Your task to perform on an android device: turn pop-ups off in chrome Image 0: 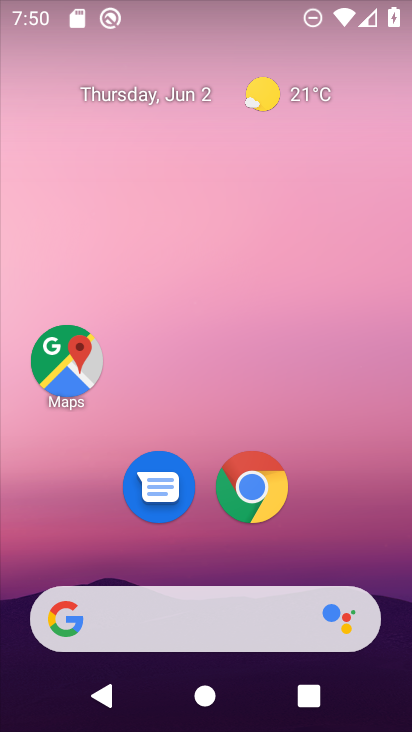
Step 0: click (250, 484)
Your task to perform on an android device: turn pop-ups off in chrome Image 1: 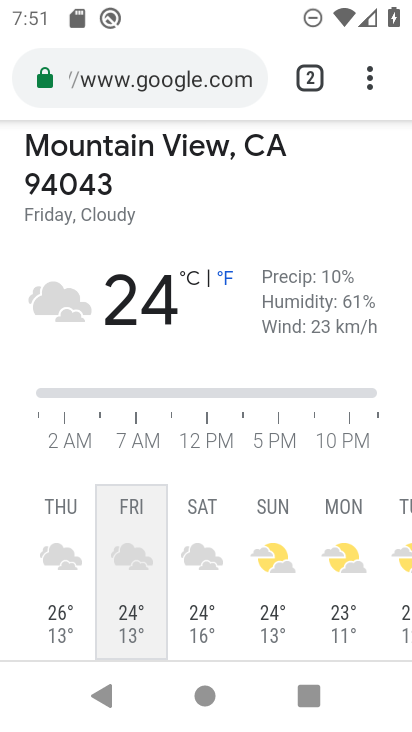
Step 1: click (370, 78)
Your task to perform on an android device: turn pop-ups off in chrome Image 2: 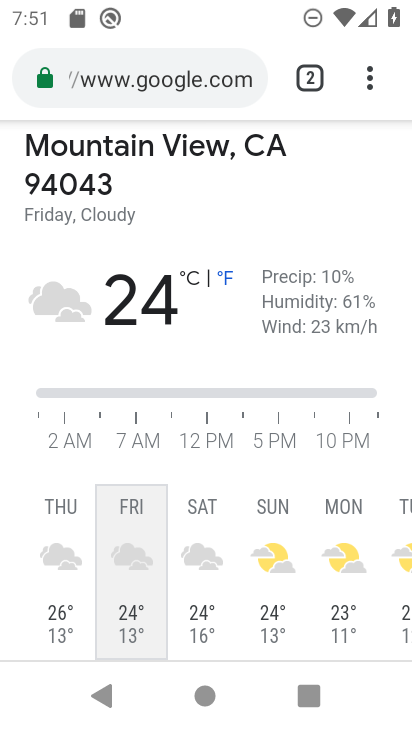
Step 2: click (371, 81)
Your task to perform on an android device: turn pop-ups off in chrome Image 3: 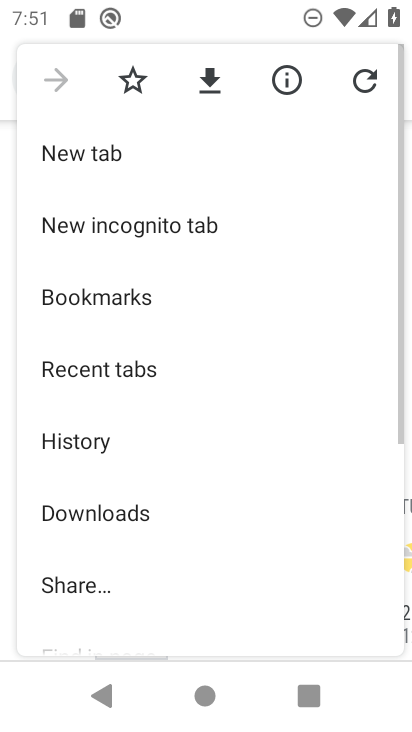
Step 3: drag from (167, 521) to (258, 50)
Your task to perform on an android device: turn pop-ups off in chrome Image 4: 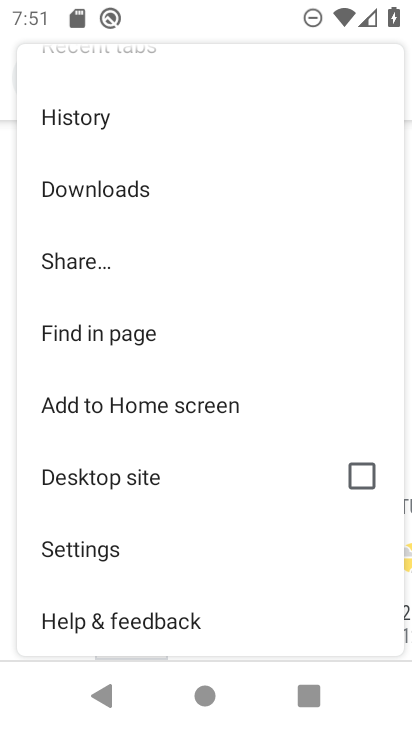
Step 4: click (94, 561)
Your task to perform on an android device: turn pop-ups off in chrome Image 5: 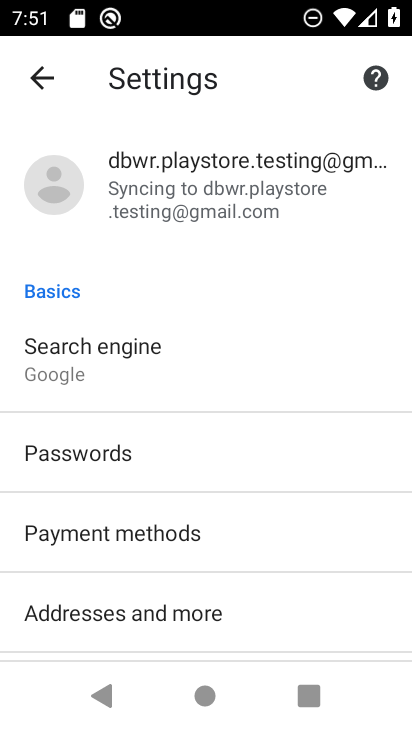
Step 5: drag from (102, 555) to (160, 210)
Your task to perform on an android device: turn pop-ups off in chrome Image 6: 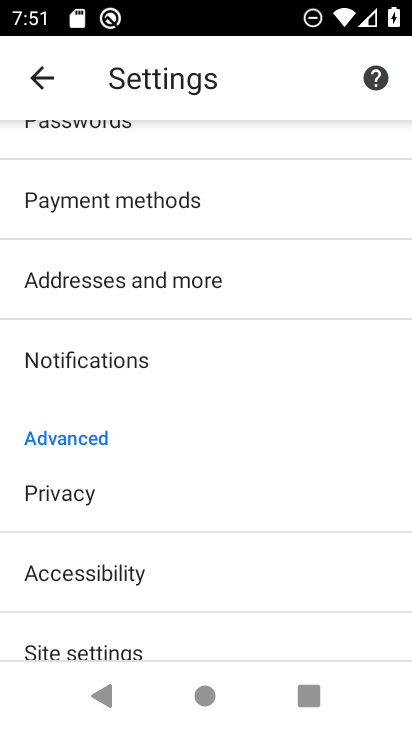
Step 6: drag from (124, 586) to (136, 375)
Your task to perform on an android device: turn pop-ups off in chrome Image 7: 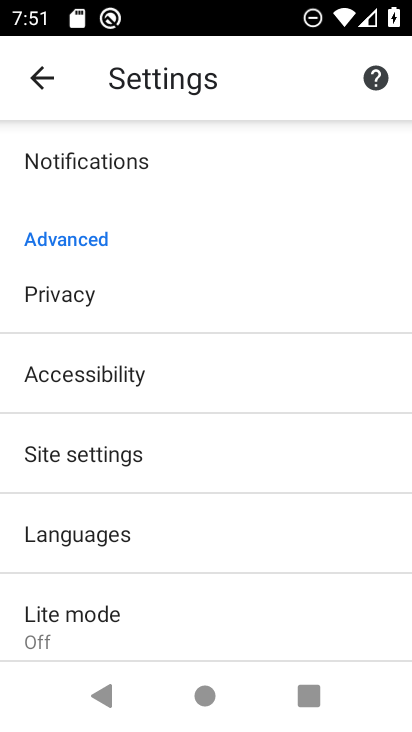
Step 7: click (94, 464)
Your task to perform on an android device: turn pop-ups off in chrome Image 8: 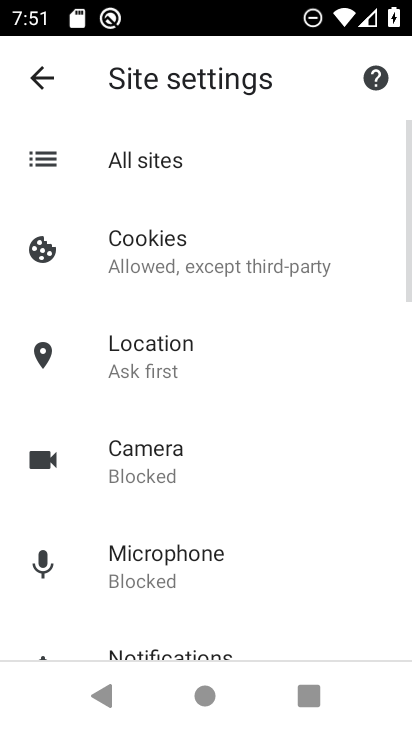
Step 8: drag from (211, 536) to (247, 149)
Your task to perform on an android device: turn pop-ups off in chrome Image 9: 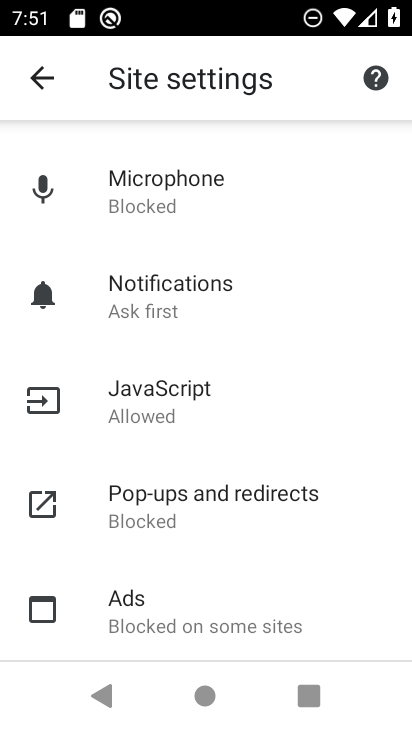
Step 9: drag from (168, 589) to (176, 235)
Your task to perform on an android device: turn pop-ups off in chrome Image 10: 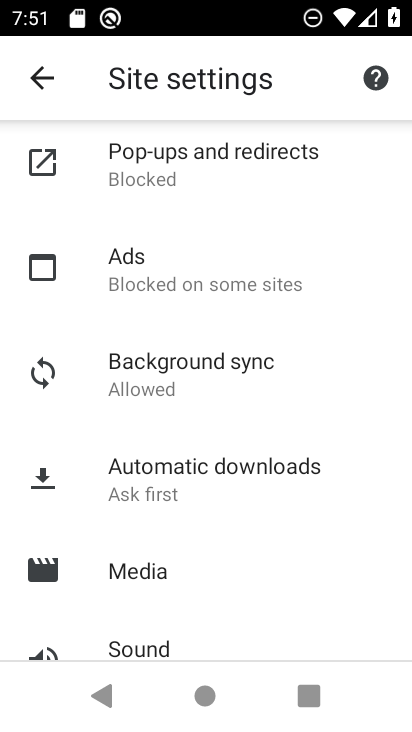
Step 10: drag from (185, 605) to (236, 685)
Your task to perform on an android device: turn pop-ups off in chrome Image 11: 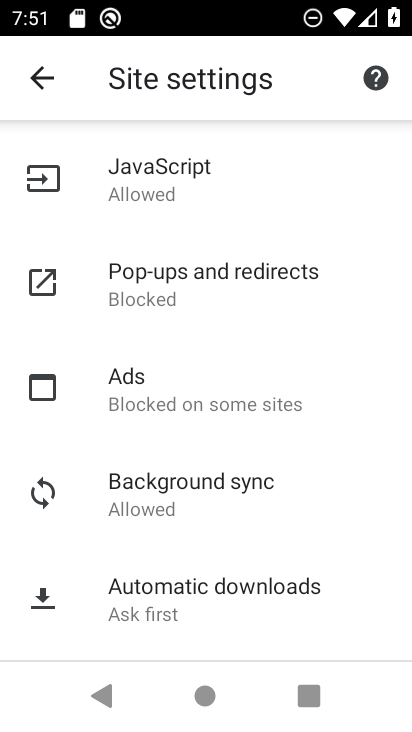
Step 11: click (189, 276)
Your task to perform on an android device: turn pop-ups off in chrome Image 12: 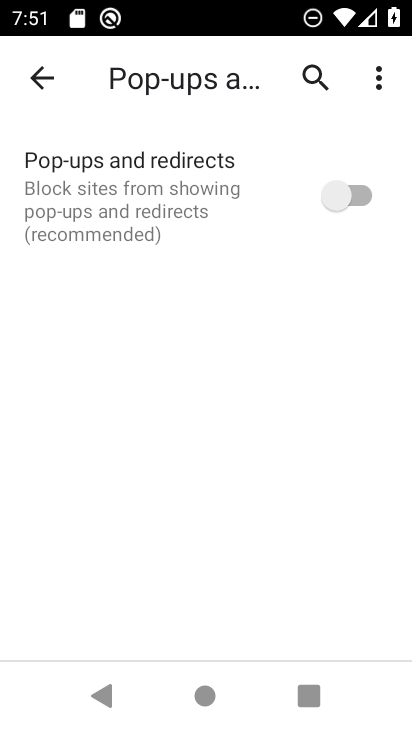
Step 12: task complete